Your task to perform on an android device: Open the stopwatch Image 0: 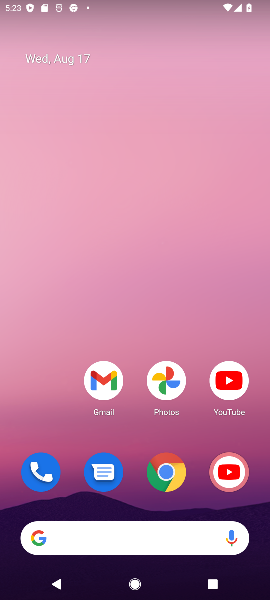
Step 0: drag from (134, 430) to (137, 114)
Your task to perform on an android device: Open the stopwatch Image 1: 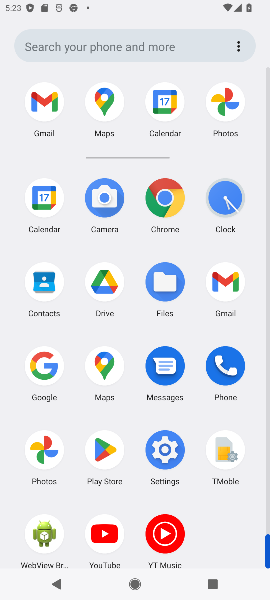
Step 1: click (224, 196)
Your task to perform on an android device: Open the stopwatch Image 2: 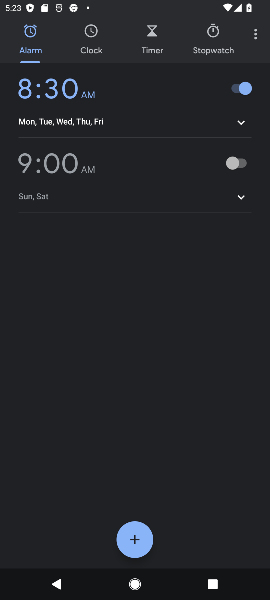
Step 2: click (200, 43)
Your task to perform on an android device: Open the stopwatch Image 3: 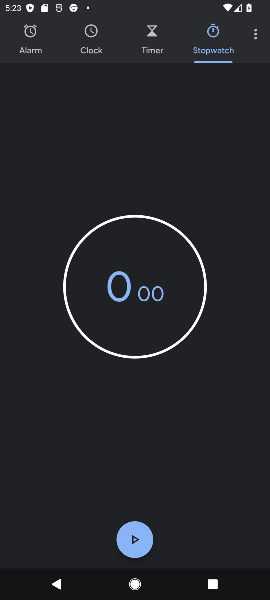
Step 3: task complete